Your task to perform on an android device: Open Wikipedia Image 0: 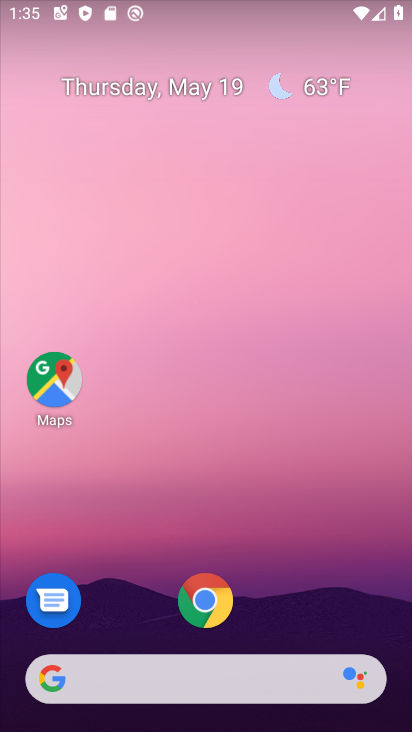
Step 0: click (205, 604)
Your task to perform on an android device: Open Wikipedia Image 1: 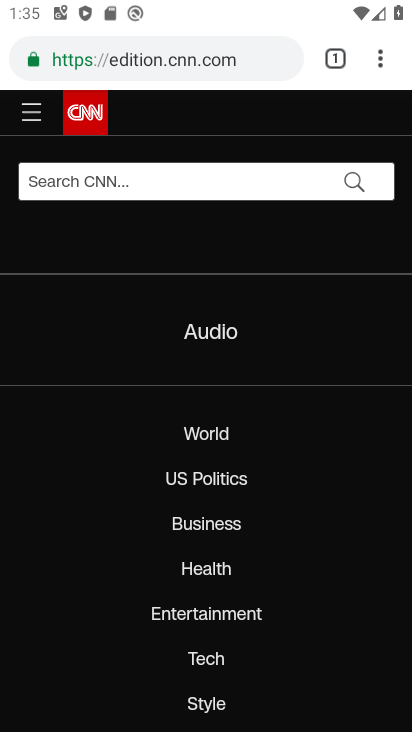
Step 1: click (346, 63)
Your task to perform on an android device: Open Wikipedia Image 2: 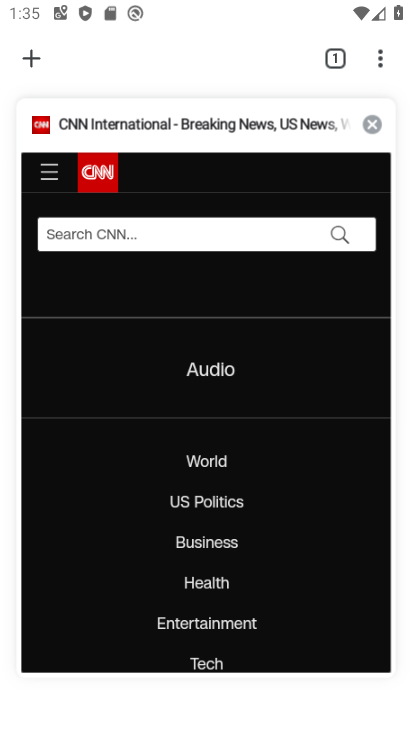
Step 2: click (368, 116)
Your task to perform on an android device: Open Wikipedia Image 3: 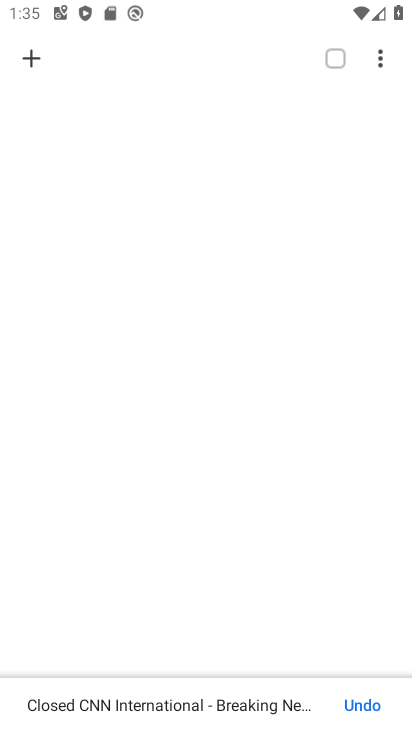
Step 3: click (25, 64)
Your task to perform on an android device: Open Wikipedia Image 4: 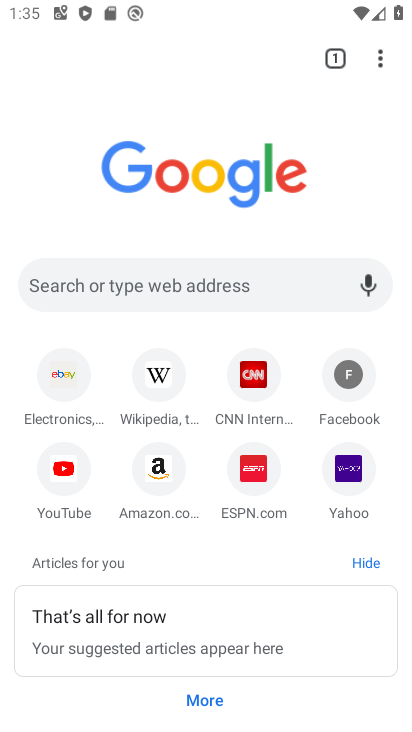
Step 4: click (158, 373)
Your task to perform on an android device: Open Wikipedia Image 5: 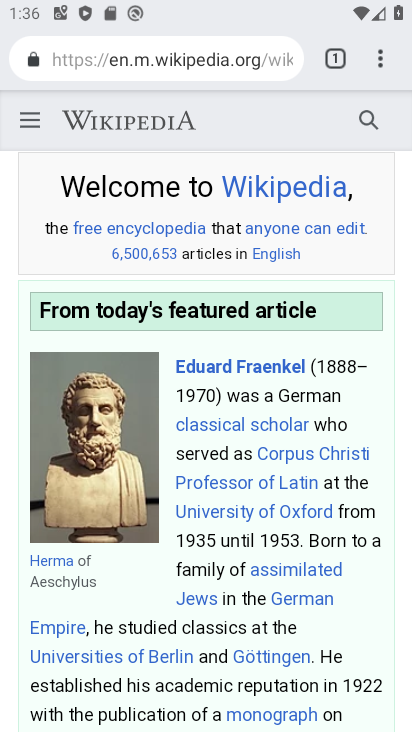
Step 5: task complete